Your task to perform on an android device: Clear the cart on newegg.com. Image 0: 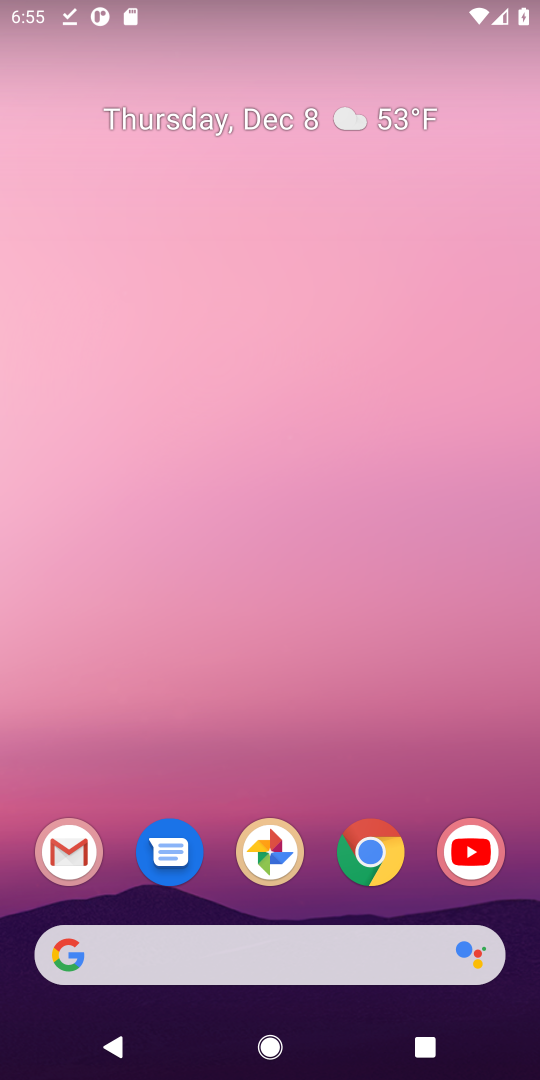
Step 0: click (314, 964)
Your task to perform on an android device: Clear the cart on newegg.com. Image 1: 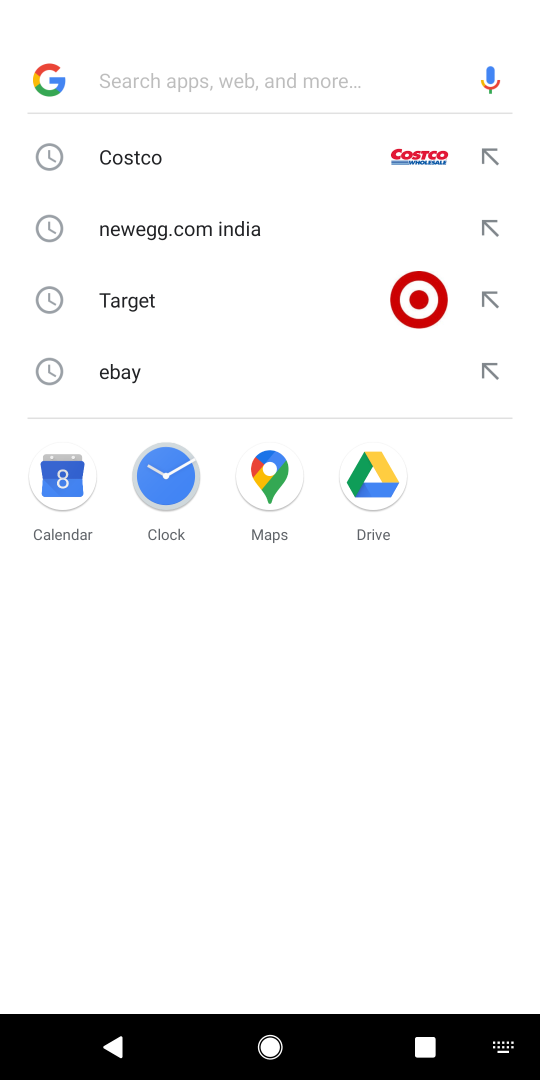
Step 1: type "n"
Your task to perform on an android device: Clear the cart on newegg.com. Image 2: 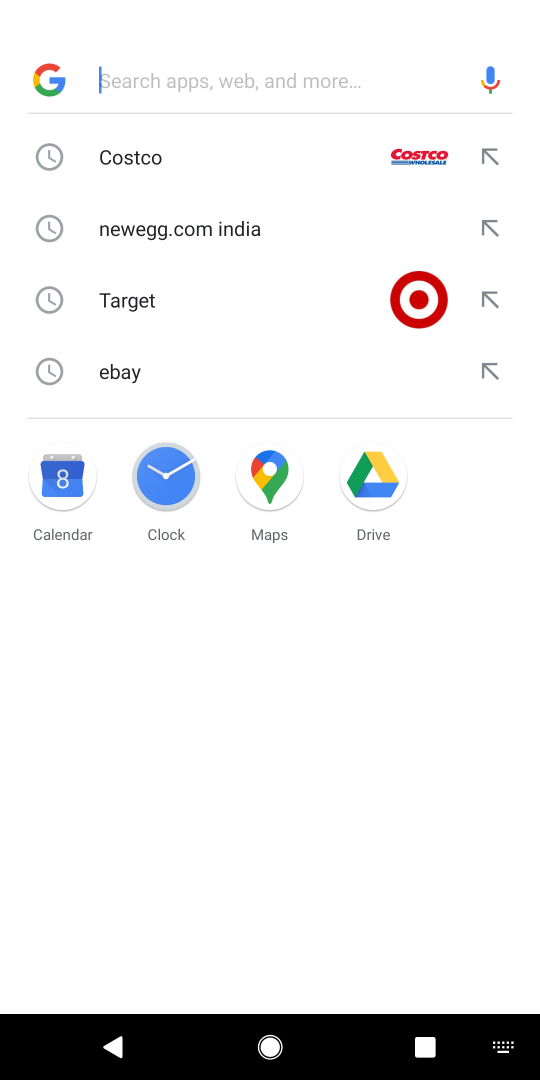
Step 2: click (192, 244)
Your task to perform on an android device: Clear the cart on newegg.com. Image 3: 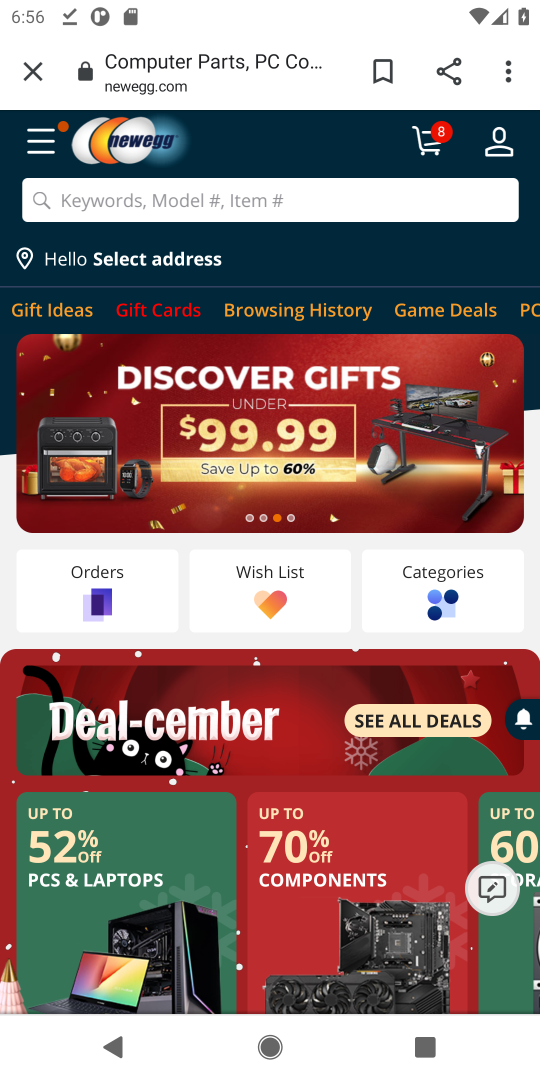
Step 3: click (310, 188)
Your task to perform on an android device: Clear the cart on newegg.com. Image 4: 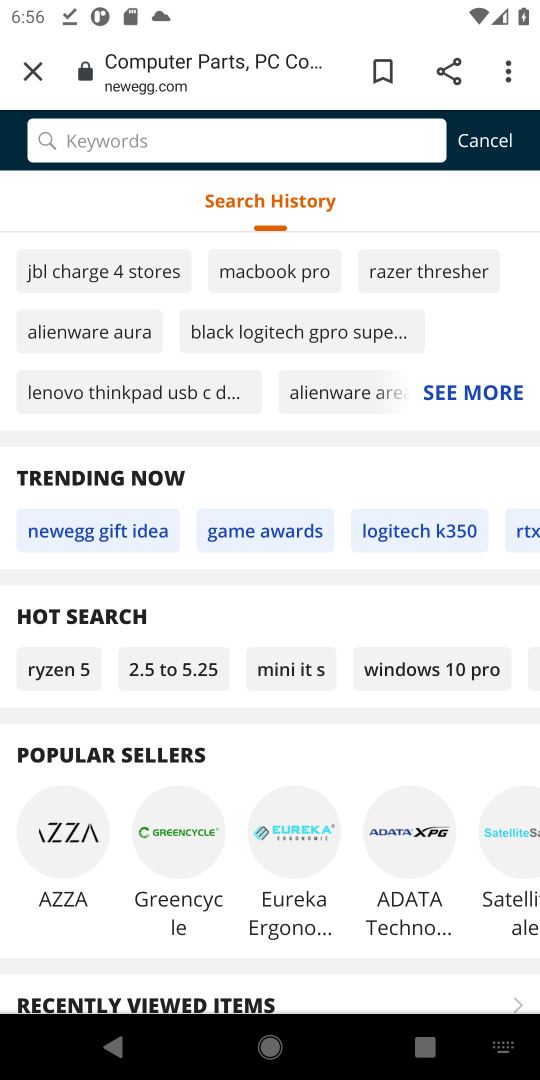
Step 4: type "newegg"
Your task to perform on an android device: Clear the cart on newegg.com. Image 5: 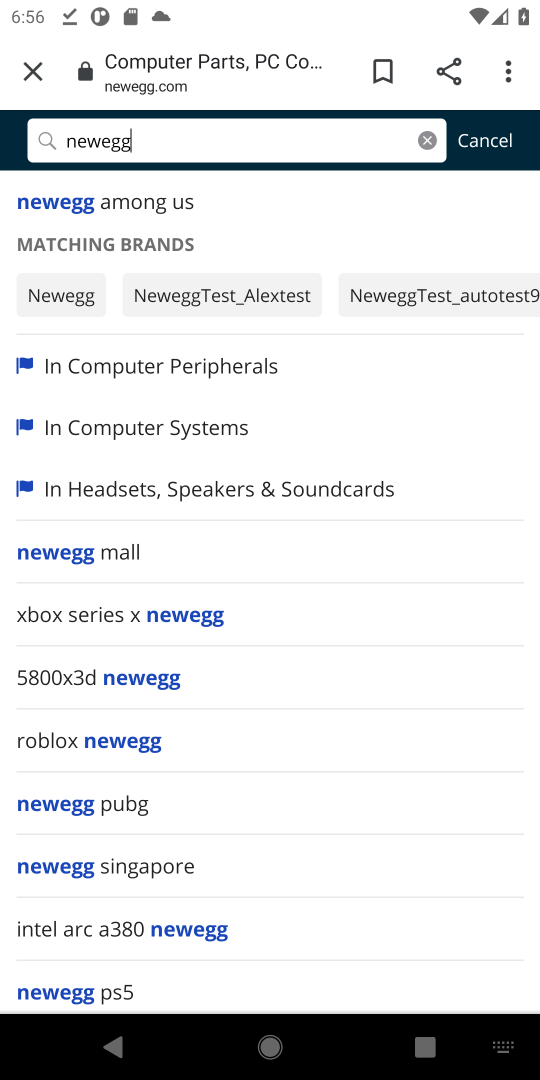
Step 5: click (424, 143)
Your task to perform on an android device: Clear the cart on newegg.com. Image 6: 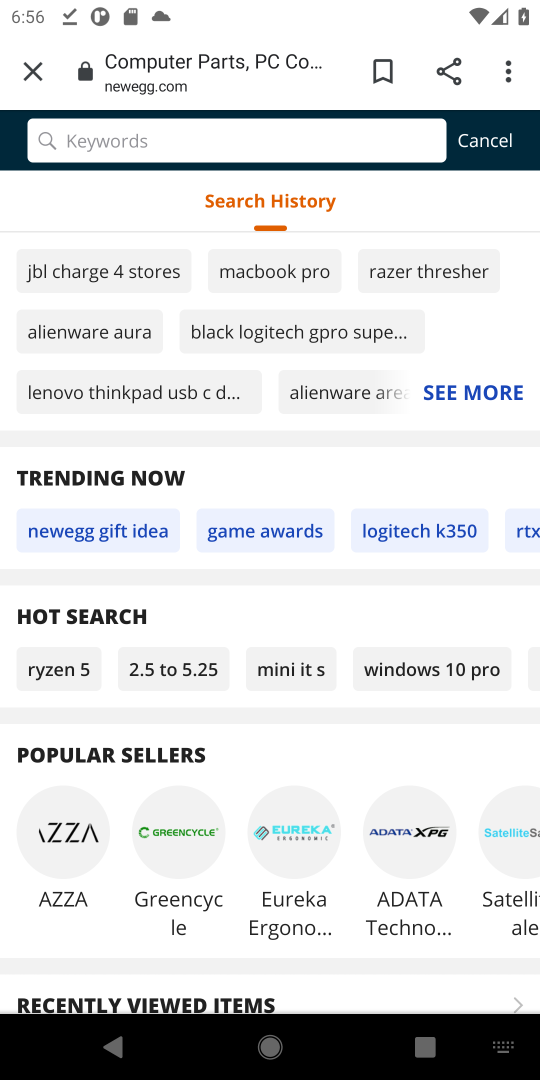
Step 6: click (462, 141)
Your task to perform on an android device: Clear the cart on newegg.com. Image 7: 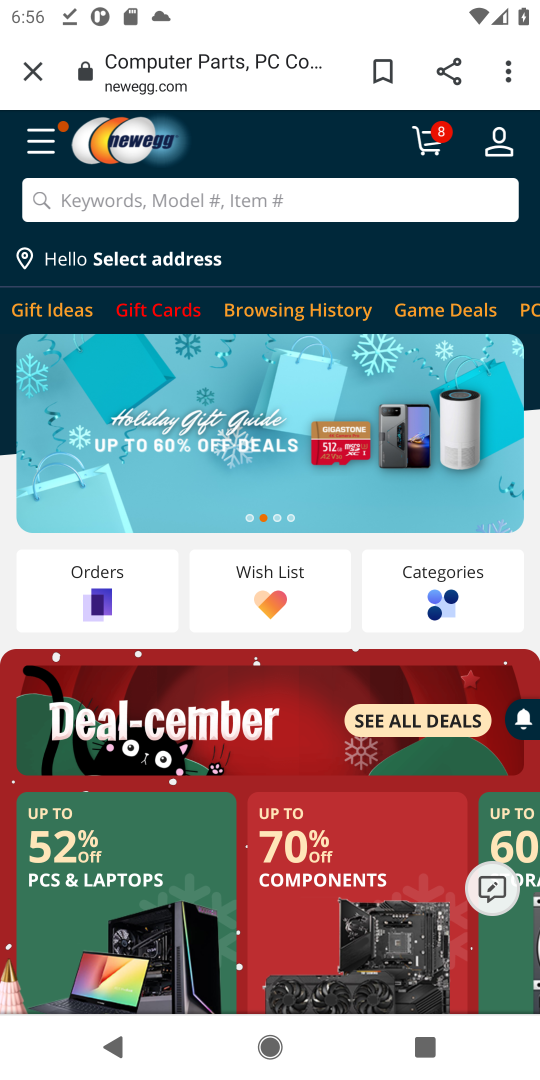
Step 7: click (433, 143)
Your task to perform on an android device: Clear the cart on newegg.com. Image 8: 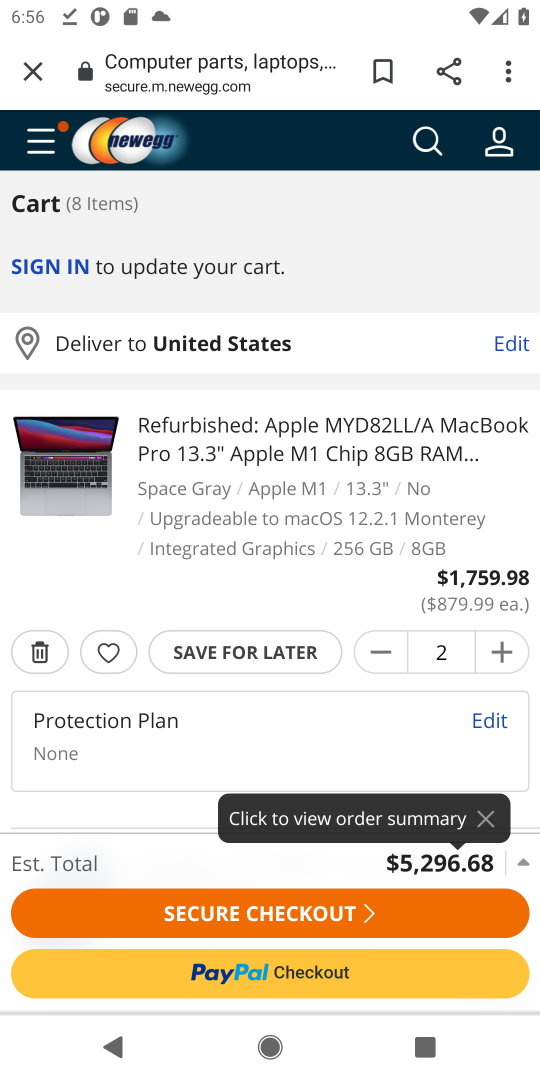
Step 8: task complete